Your task to perform on an android device: turn off smart reply in the gmail app Image 0: 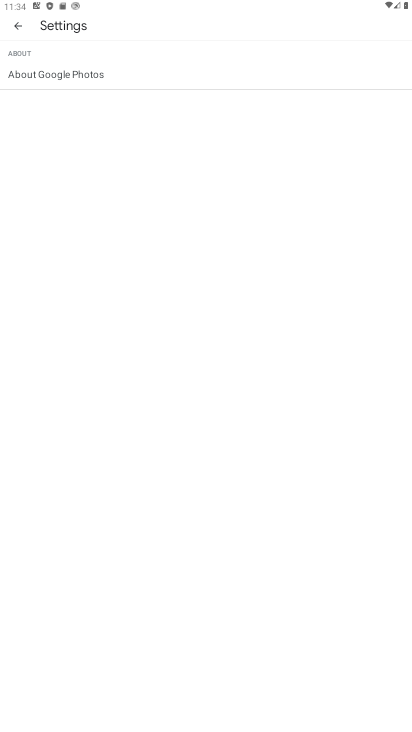
Step 0: press home button
Your task to perform on an android device: turn off smart reply in the gmail app Image 1: 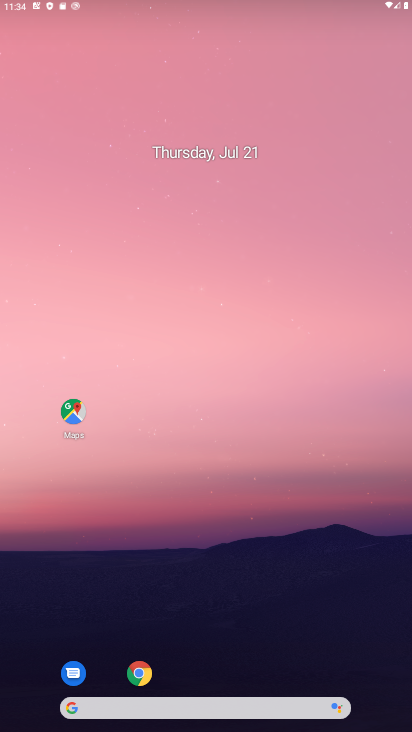
Step 1: drag from (228, 613) to (220, 94)
Your task to perform on an android device: turn off smart reply in the gmail app Image 2: 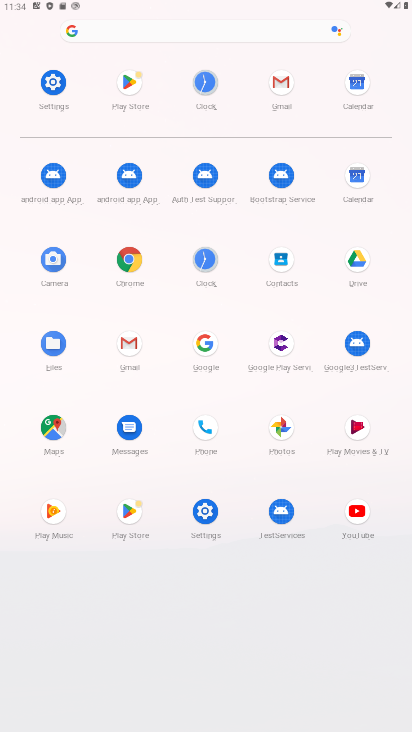
Step 2: click (276, 85)
Your task to perform on an android device: turn off smart reply in the gmail app Image 3: 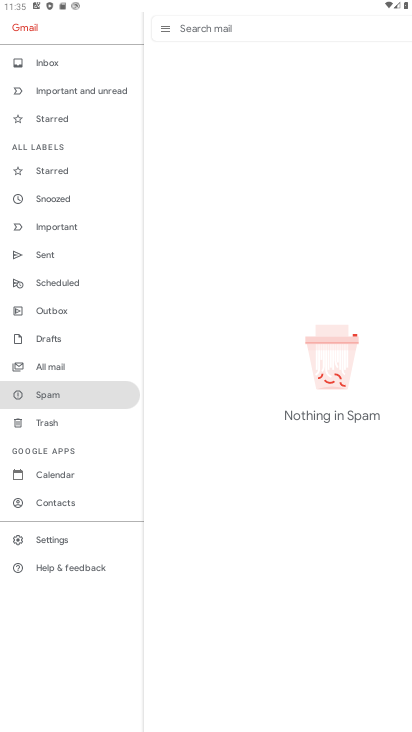
Step 3: click (58, 534)
Your task to perform on an android device: turn off smart reply in the gmail app Image 4: 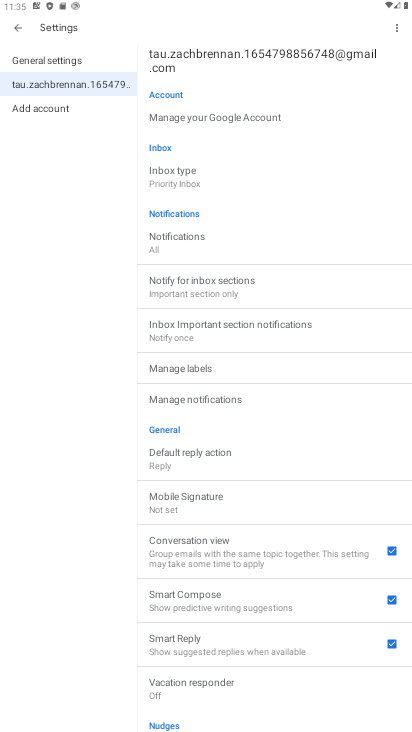
Step 4: click (389, 646)
Your task to perform on an android device: turn off smart reply in the gmail app Image 5: 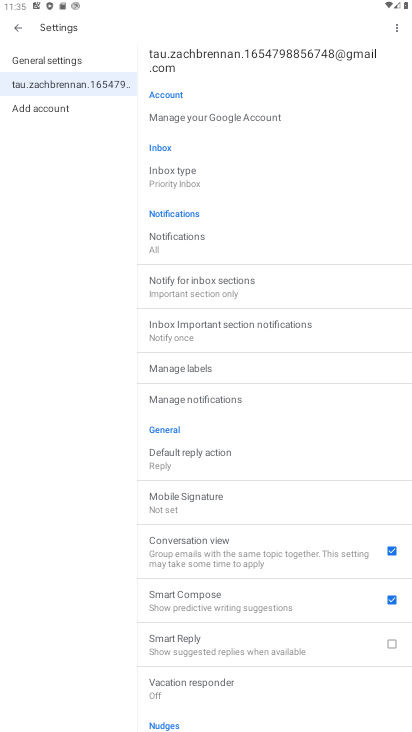
Step 5: task complete